Your task to perform on an android device: Show the shopping cart on walmart.com. Image 0: 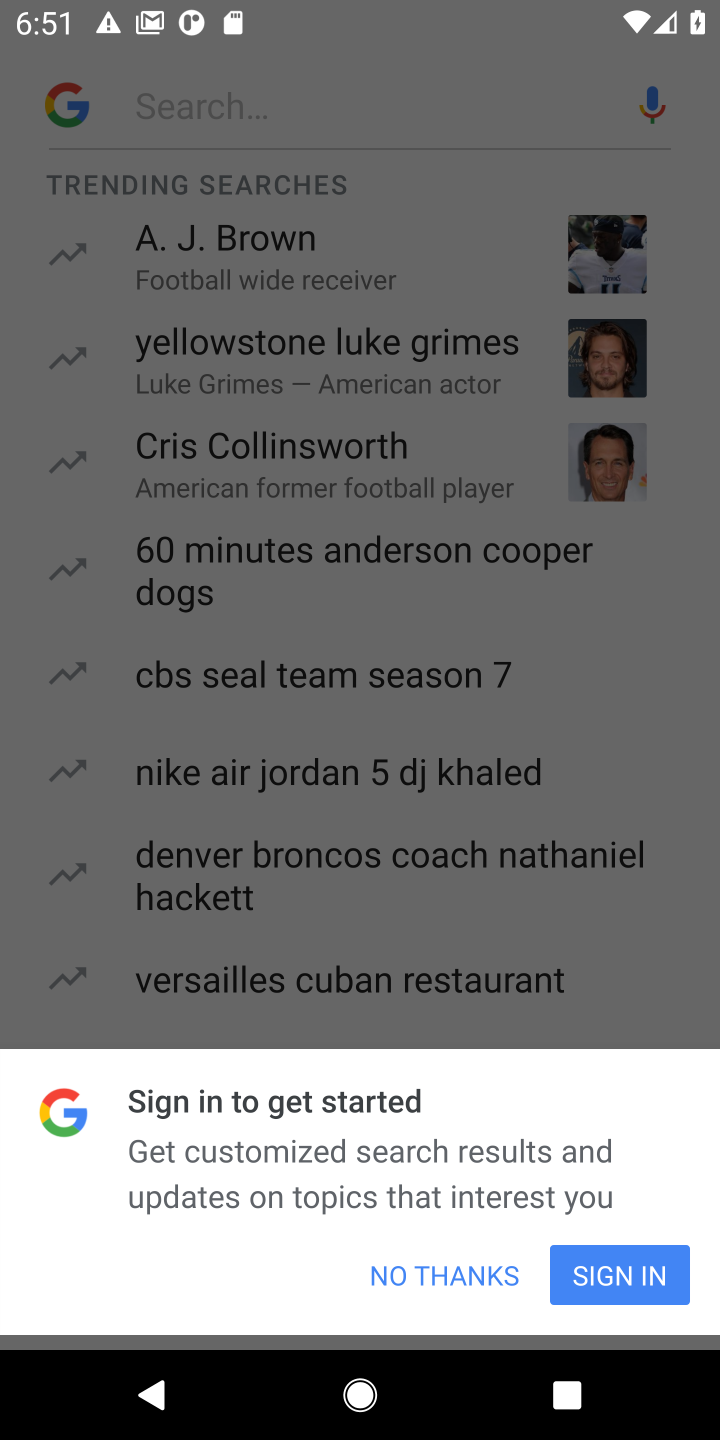
Step 0: press home button
Your task to perform on an android device: Show the shopping cart on walmart.com. Image 1: 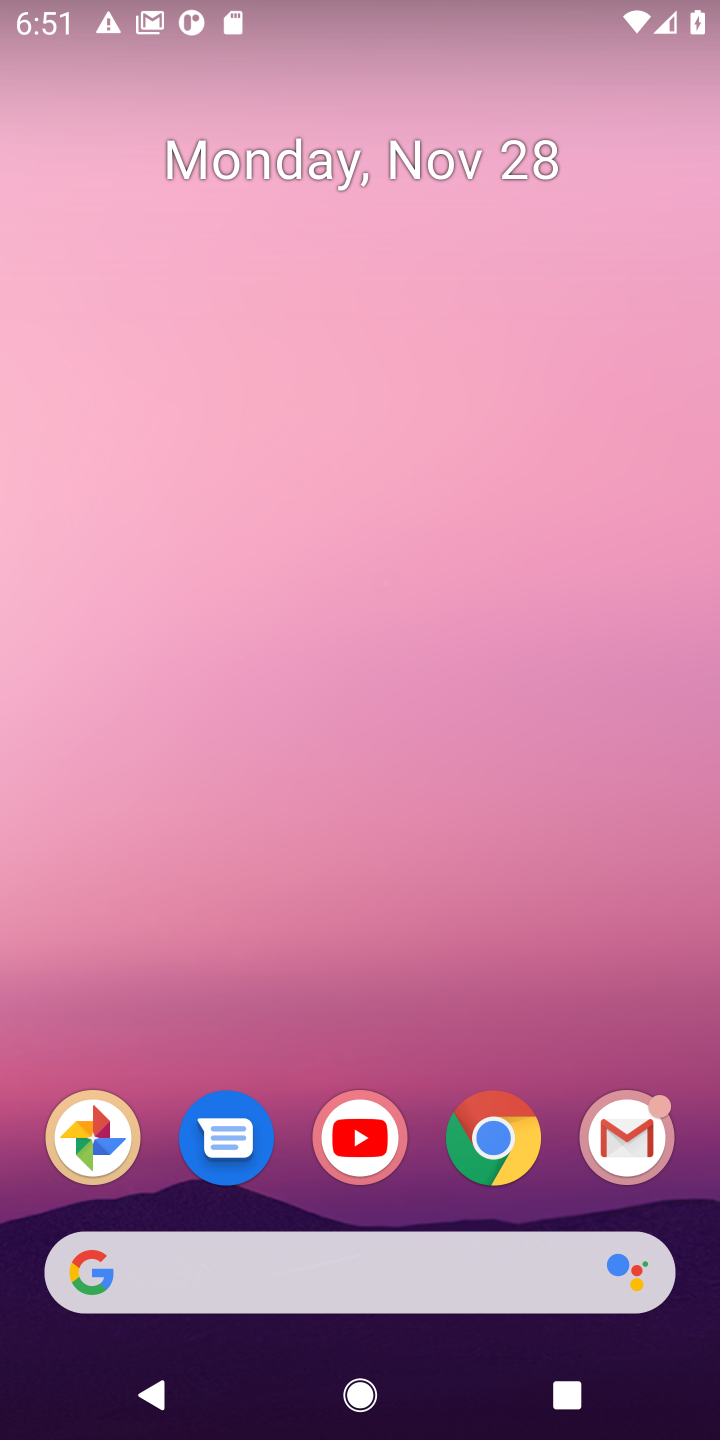
Step 1: click (496, 1154)
Your task to perform on an android device: Show the shopping cart on walmart.com. Image 2: 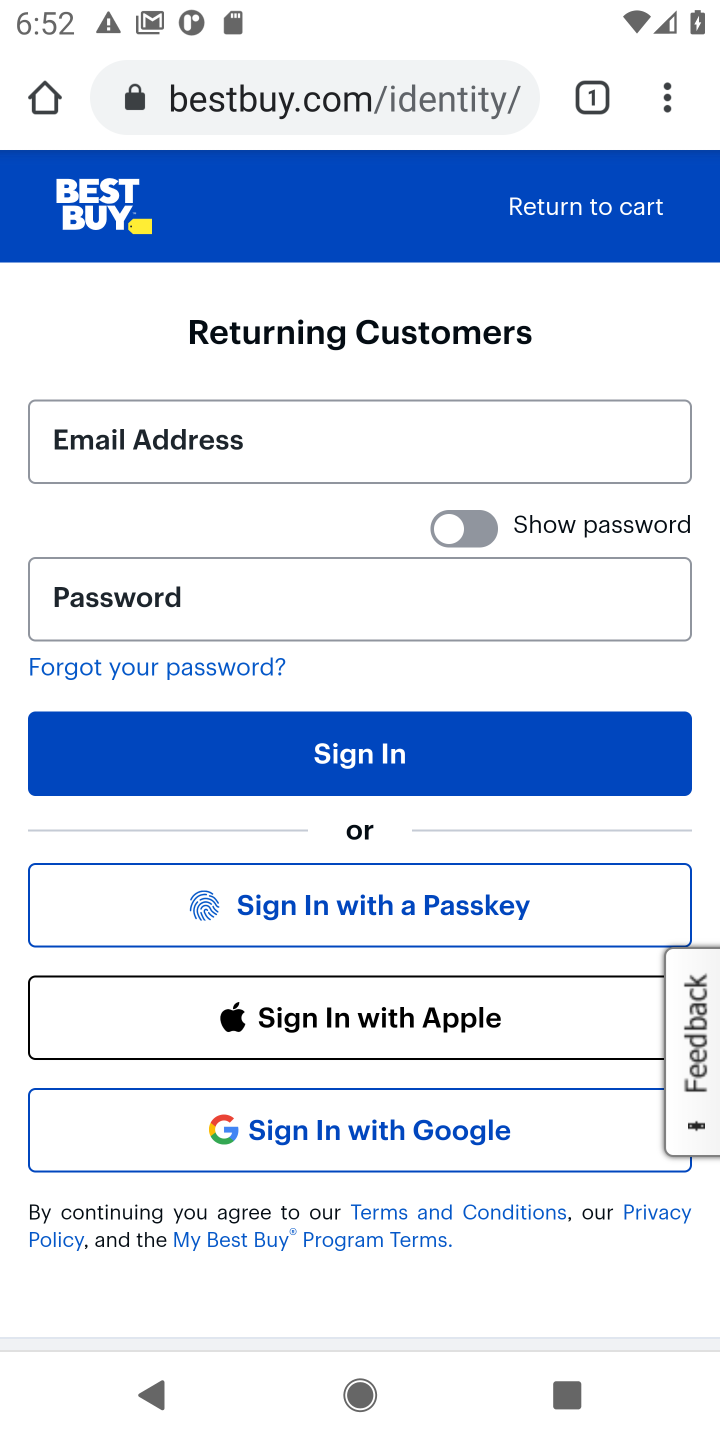
Step 2: click (265, 105)
Your task to perform on an android device: Show the shopping cart on walmart.com. Image 3: 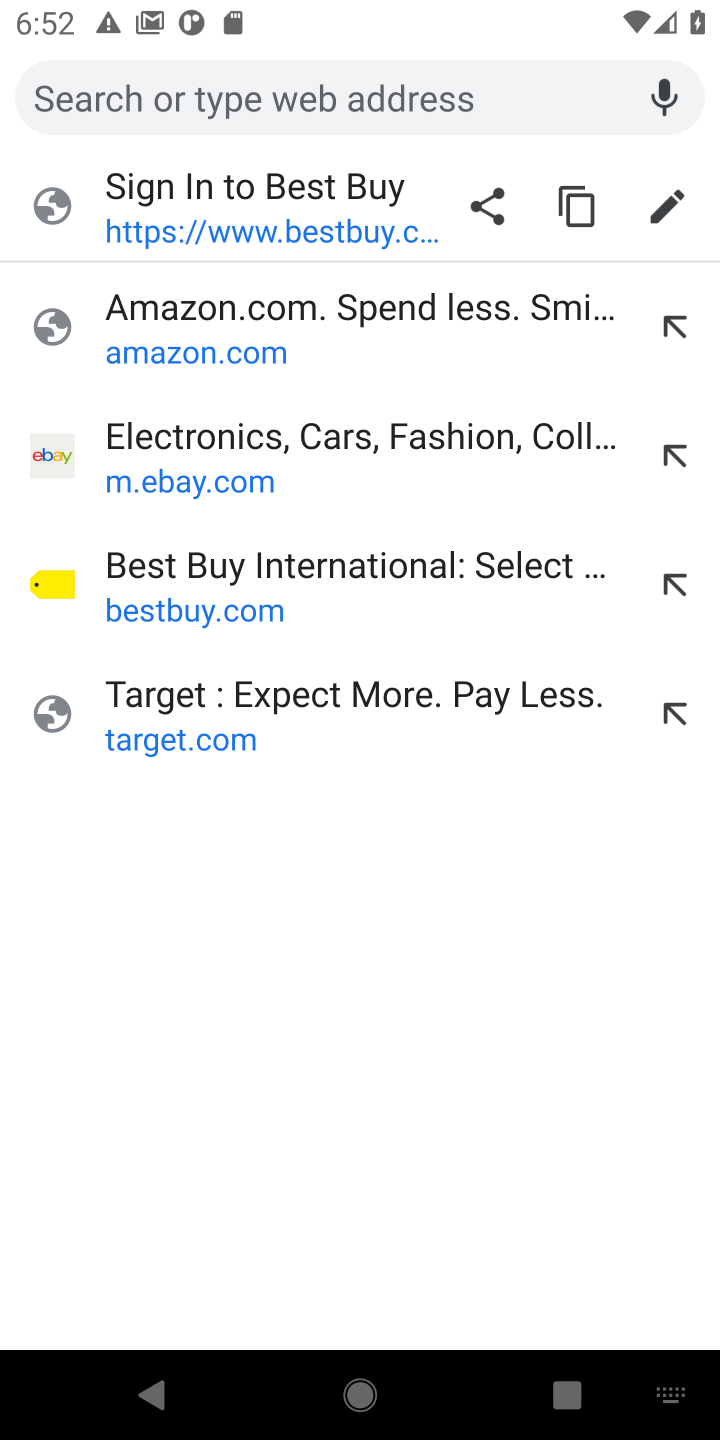
Step 3: type "walmart.com"
Your task to perform on an android device: Show the shopping cart on walmart.com. Image 4: 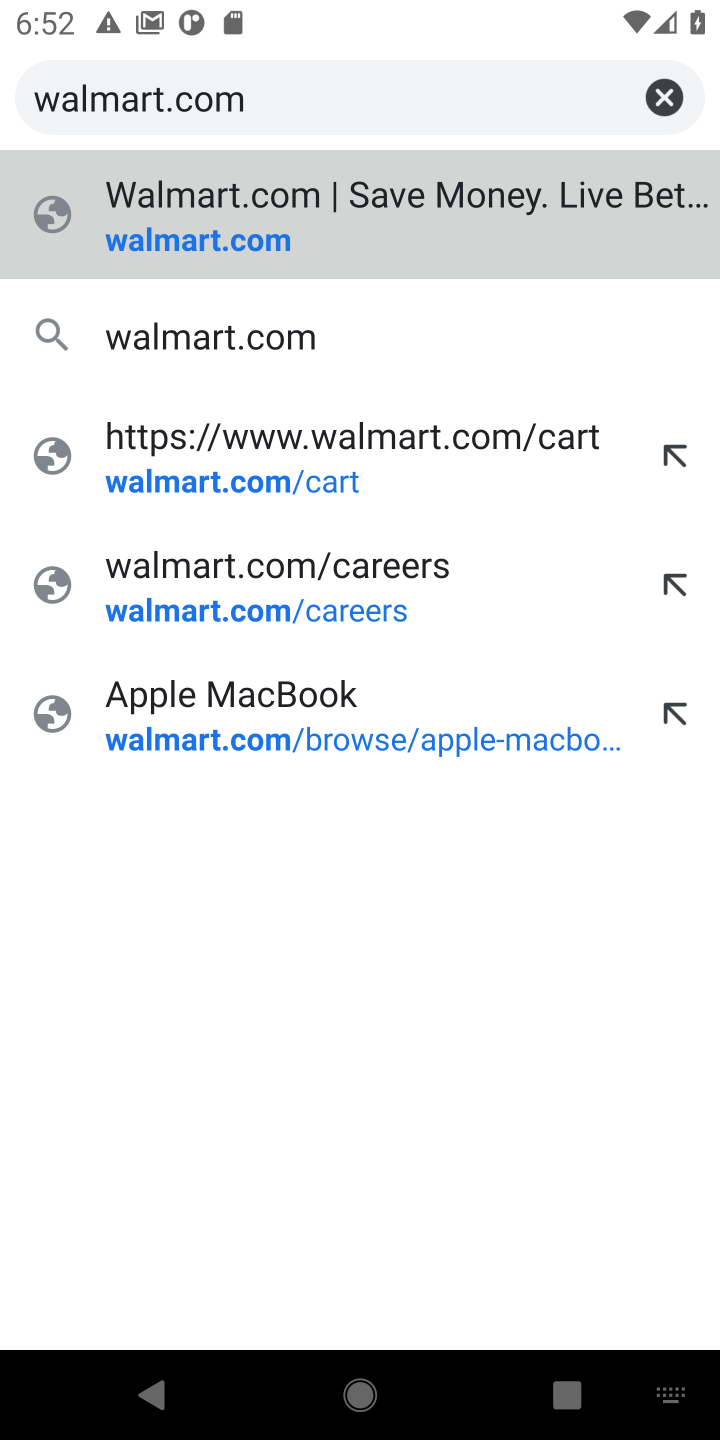
Step 4: click (208, 260)
Your task to perform on an android device: Show the shopping cart on walmart.com. Image 5: 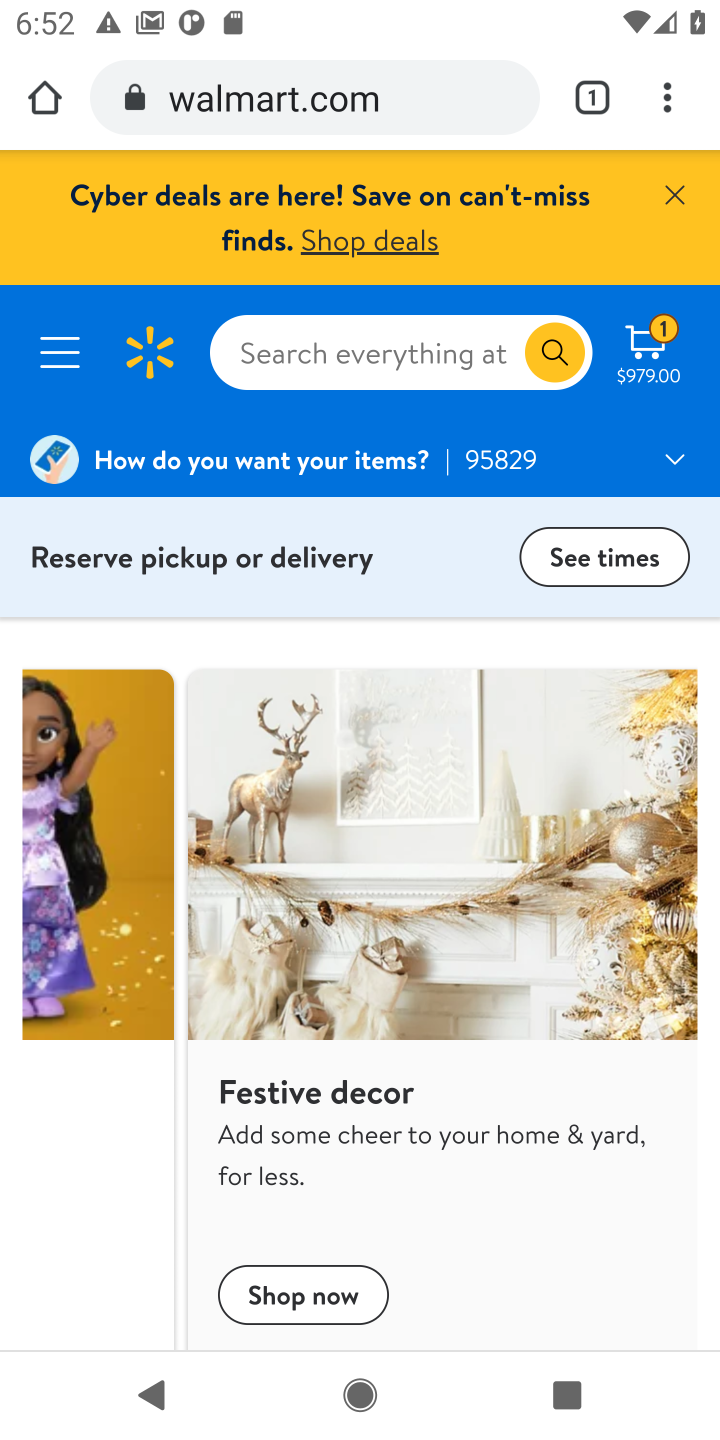
Step 5: click (633, 357)
Your task to perform on an android device: Show the shopping cart on walmart.com. Image 6: 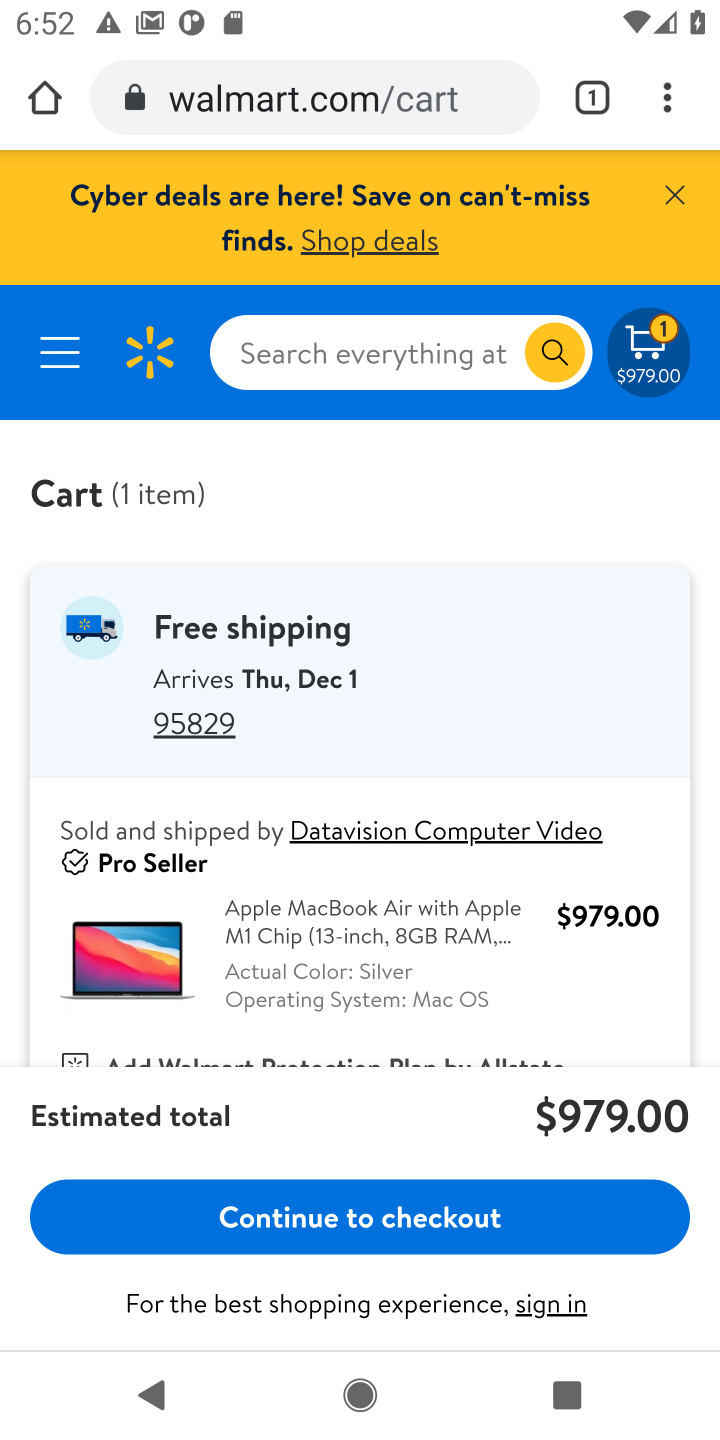
Step 6: task complete